Your task to perform on an android device: Go to privacy settings Image 0: 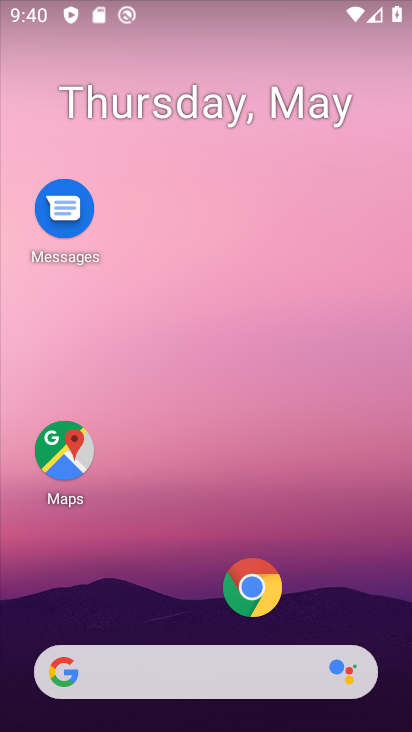
Step 0: drag from (218, 624) to (270, 32)
Your task to perform on an android device: Go to privacy settings Image 1: 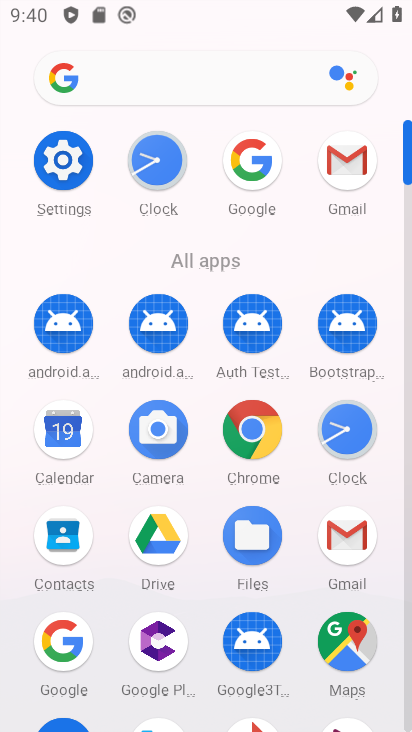
Step 1: click (81, 181)
Your task to perform on an android device: Go to privacy settings Image 2: 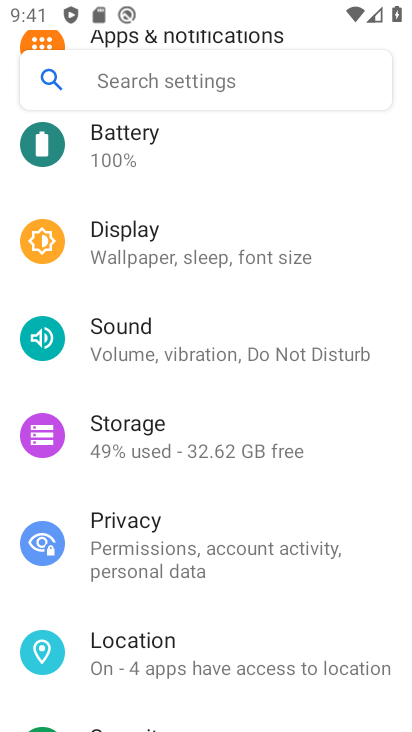
Step 2: drag from (125, 187) to (139, 249)
Your task to perform on an android device: Go to privacy settings Image 3: 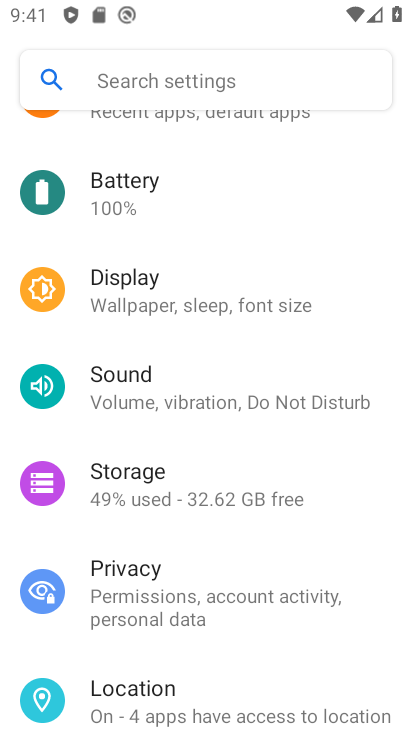
Step 3: click (172, 594)
Your task to perform on an android device: Go to privacy settings Image 4: 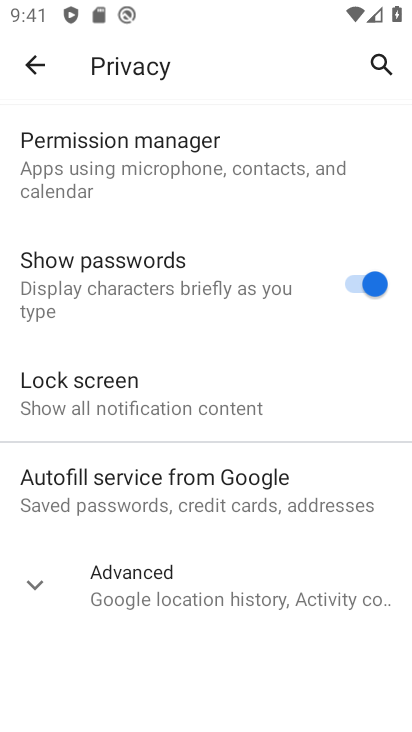
Step 4: task complete